Your task to perform on an android device: uninstall "Mercado Libre" Image 0: 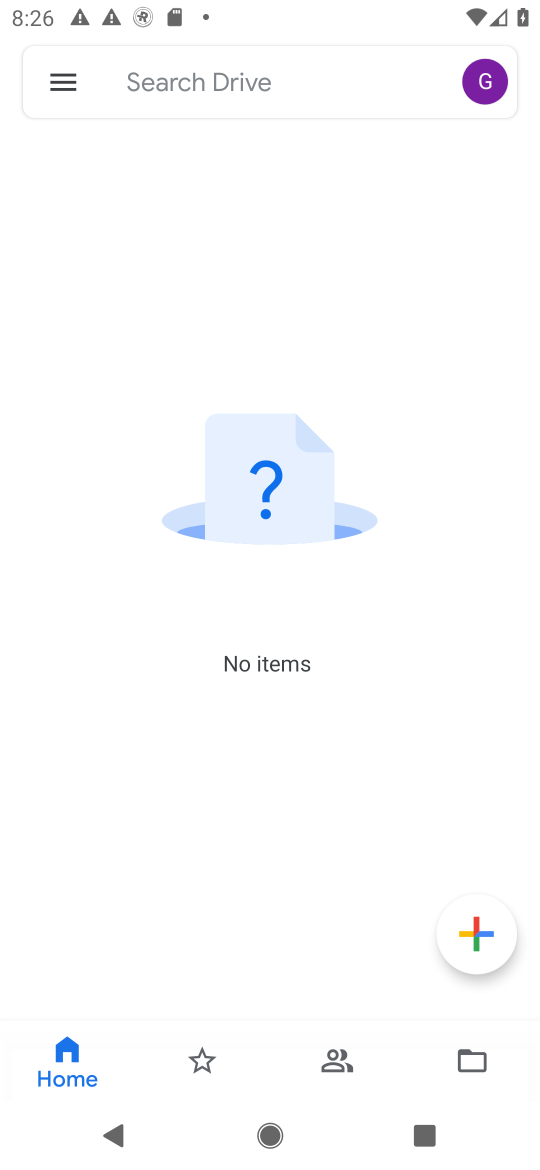
Step 0: press home button
Your task to perform on an android device: uninstall "Mercado Libre" Image 1: 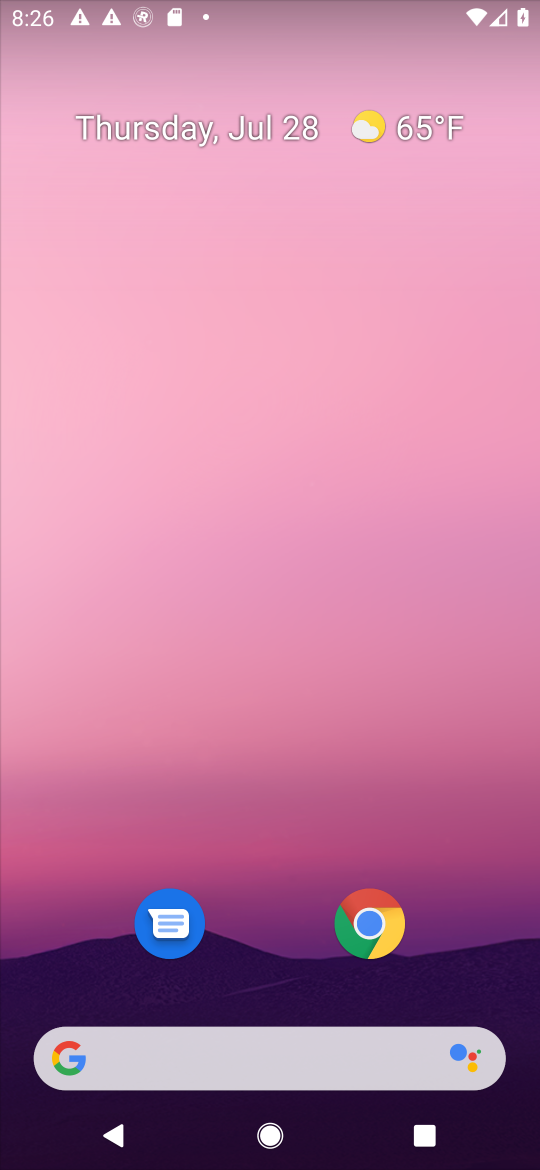
Step 1: drag from (471, 817) to (254, 0)
Your task to perform on an android device: uninstall "Mercado Libre" Image 2: 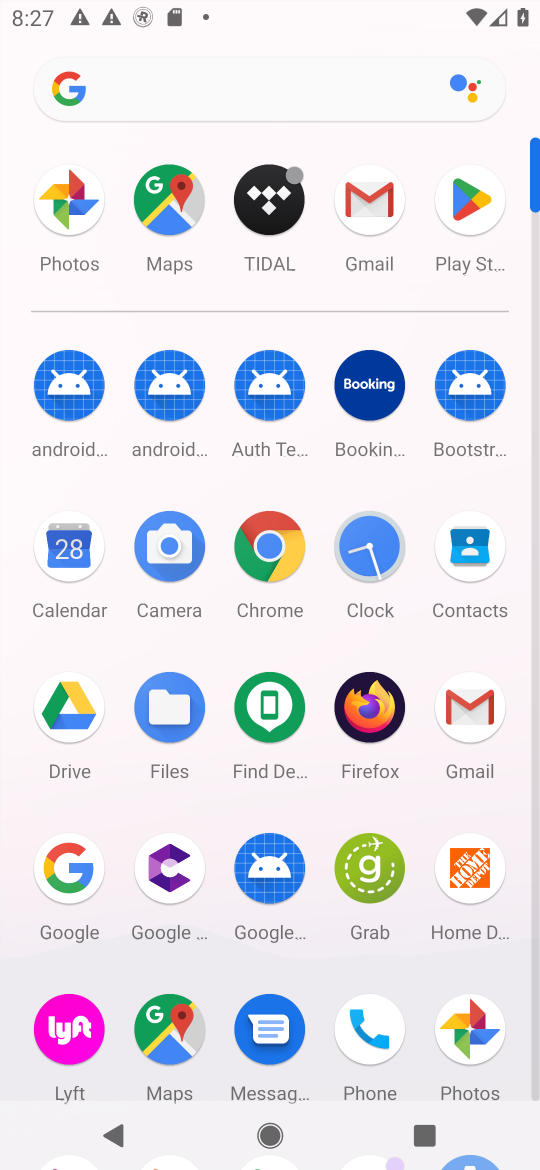
Step 2: click (477, 216)
Your task to perform on an android device: uninstall "Mercado Libre" Image 3: 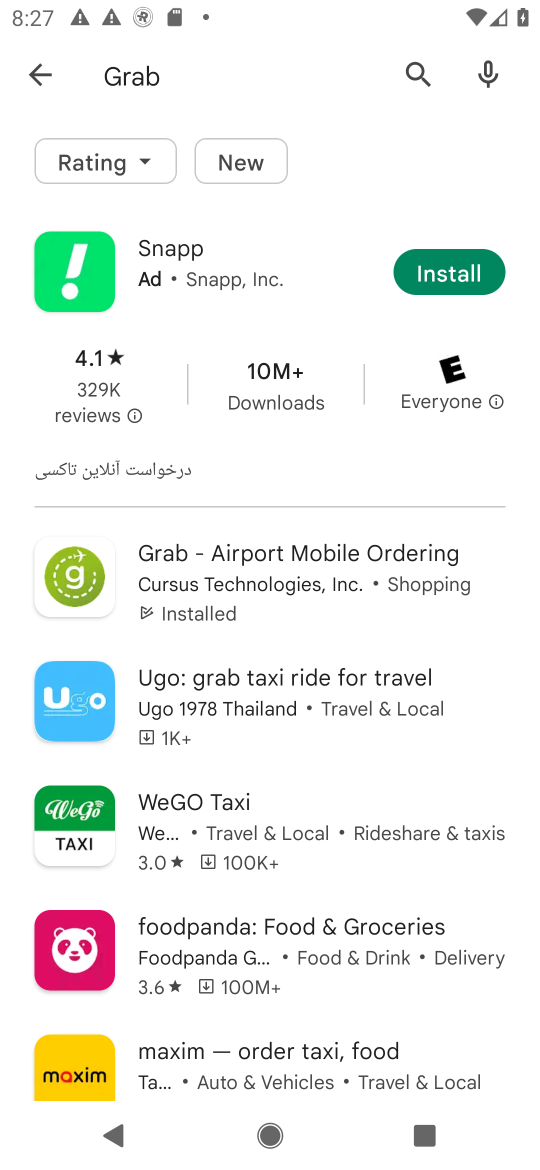
Step 3: click (426, 67)
Your task to perform on an android device: uninstall "Mercado Libre" Image 4: 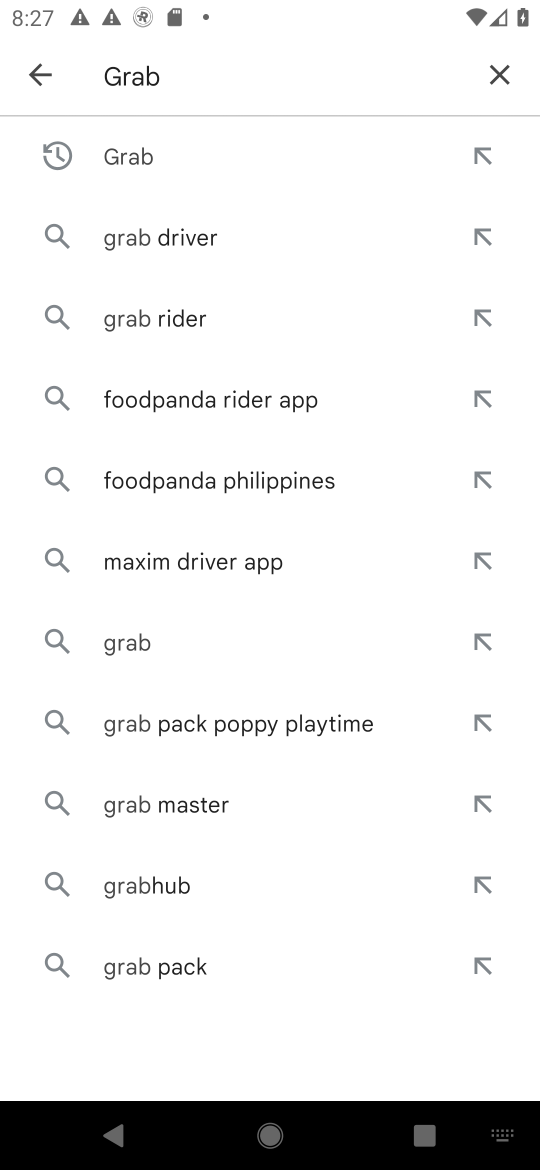
Step 4: click (507, 67)
Your task to perform on an android device: uninstall "Mercado Libre" Image 5: 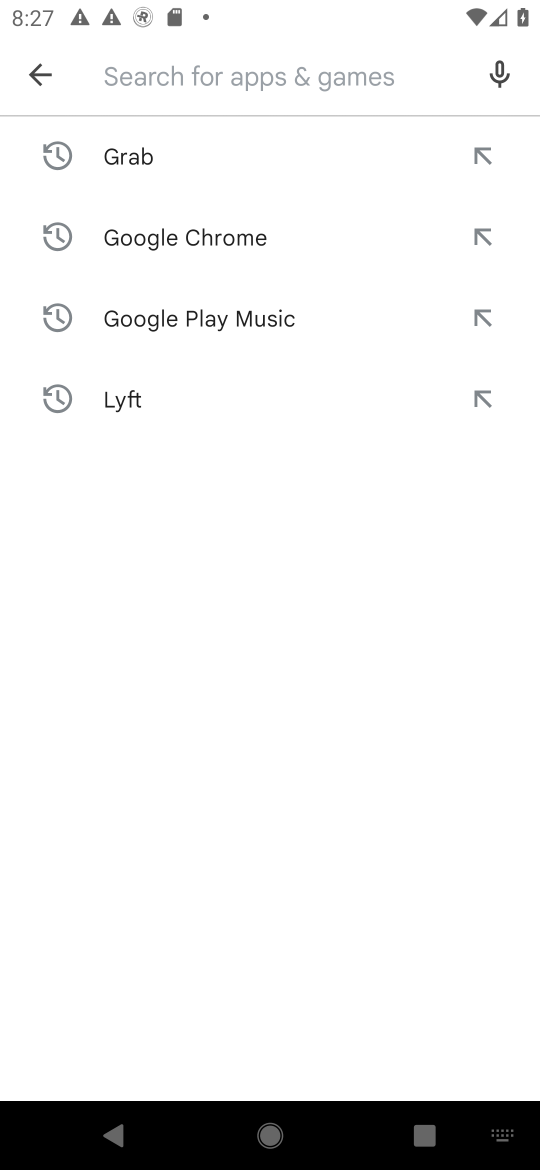
Step 5: type "Mercado Libre"
Your task to perform on an android device: uninstall "Mercado Libre" Image 6: 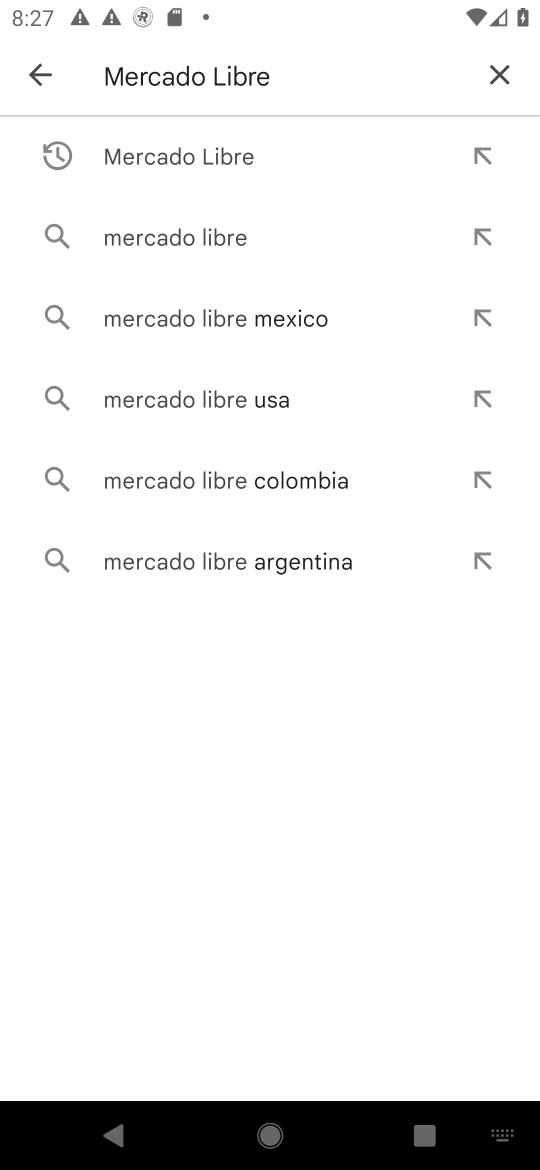
Step 6: click (304, 156)
Your task to perform on an android device: uninstall "Mercado Libre" Image 7: 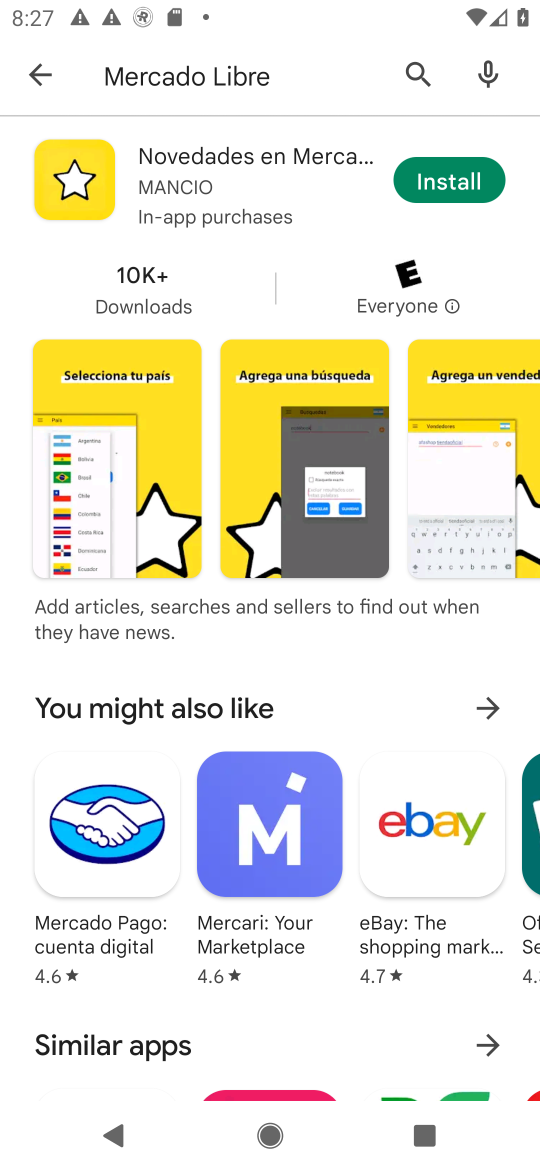
Step 7: click (228, 171)
Your task to perform on an android device: uninstall "Mercado Libre" Image 8: 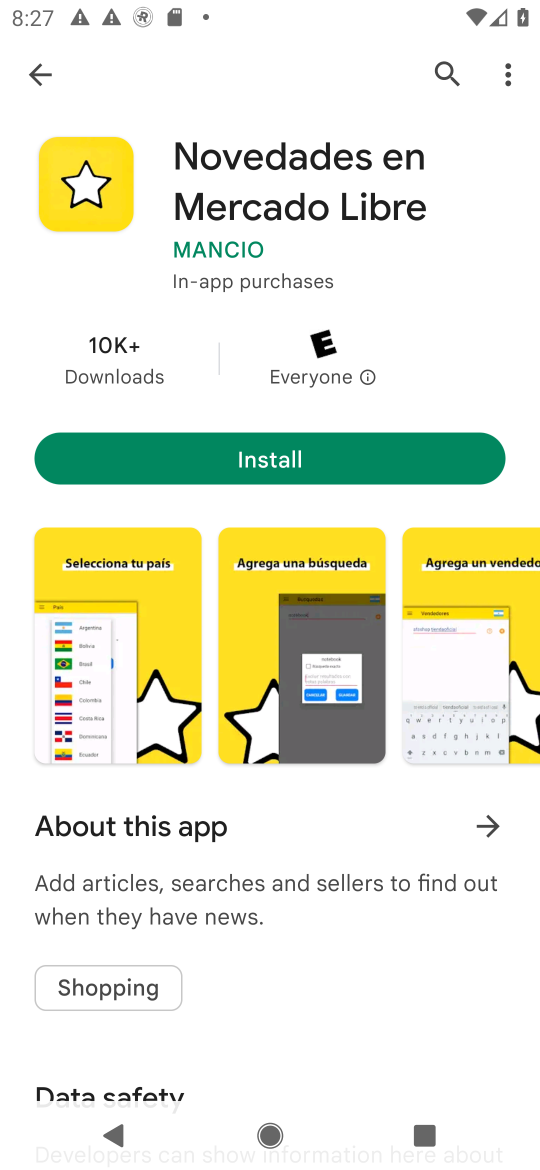
Step 8: task complete